Your task to perform on an android device: Open battery settings Image 0: 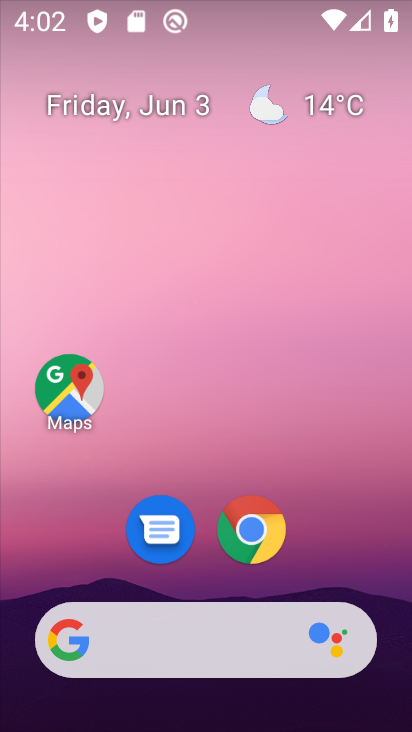
Step 0: drag from (374, 533) to (370, 33)
Your task to perform on an android device: Open battery settings Image 1: 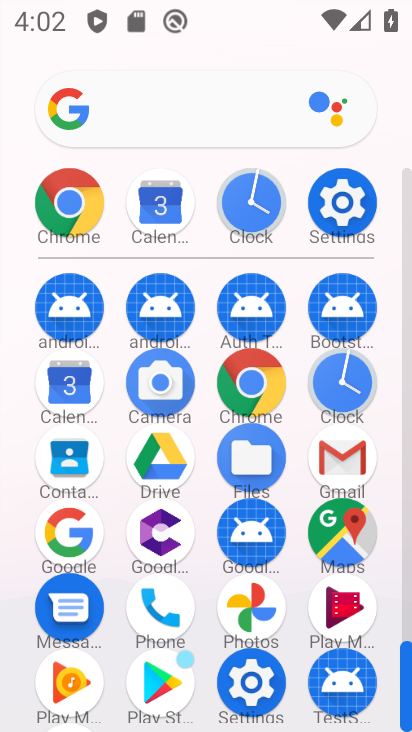
Step 1: click (364, 193)
Your task to perform on an android device: Open battery settings Image 2: 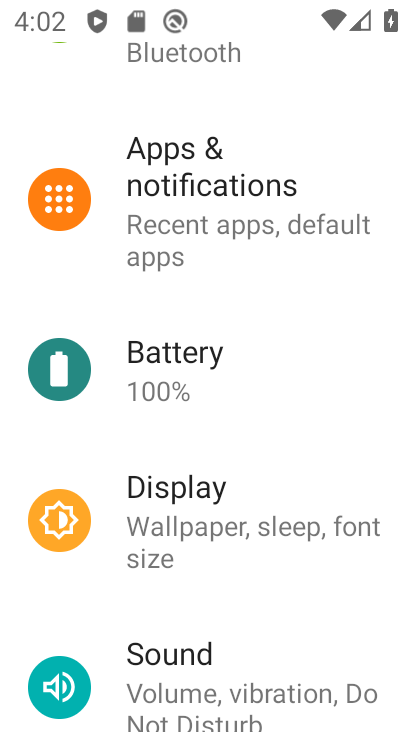
Step 2: click (358, 210)
Your task to perform on an android device: Open battery settings Image 3: 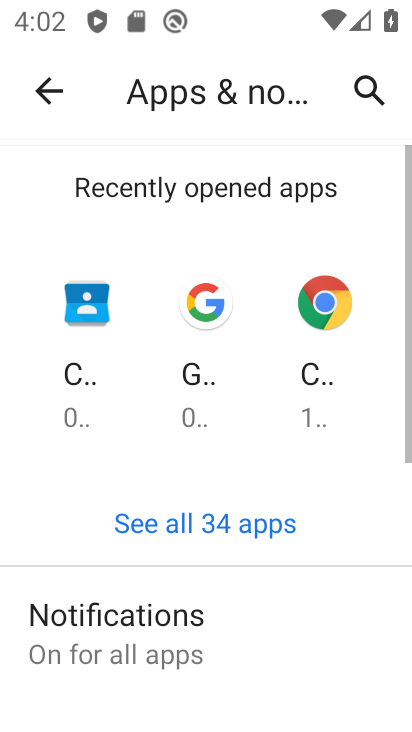
Step 3: click (58, 104)
Your task to perform on an android device: Open battery settings Image 4: 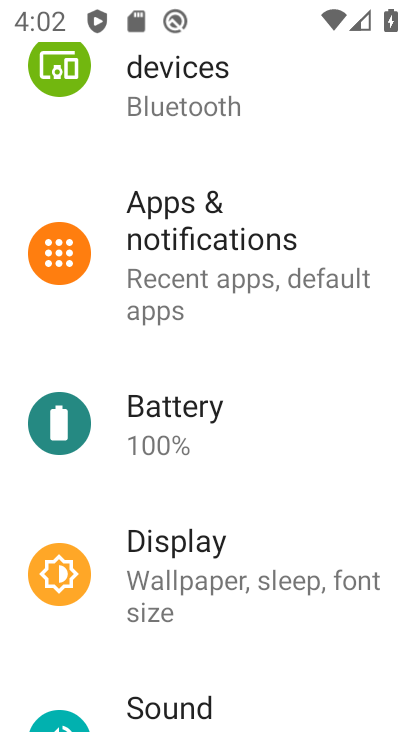
Step 4: click (199, 421)
Your task to perform on an android device: Open battery settings Image 5: 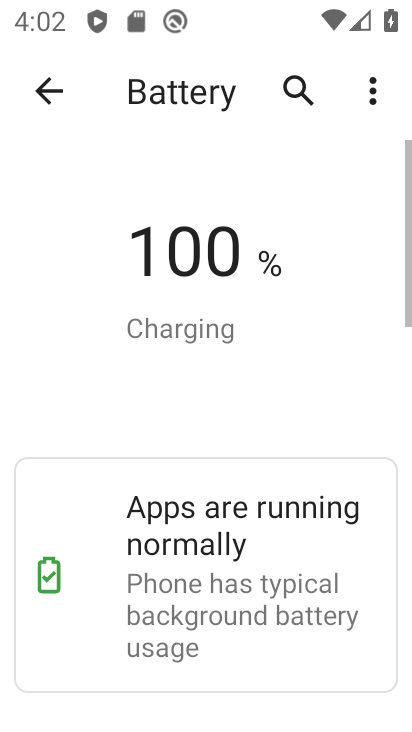
Step 5: task complete